Your task to perform on an android device: Go to calendar. Show me events next week Image 0: 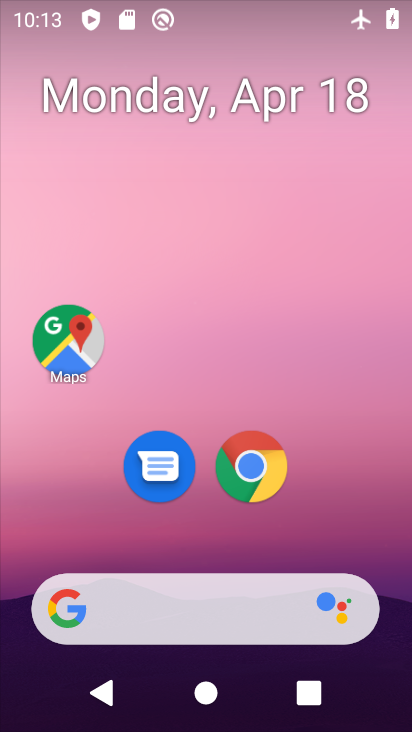
Step 0: drag from (258, 417) to (289, 157)
Your task to perform on an android device: Go to calendar. Show me events next week Image 1: 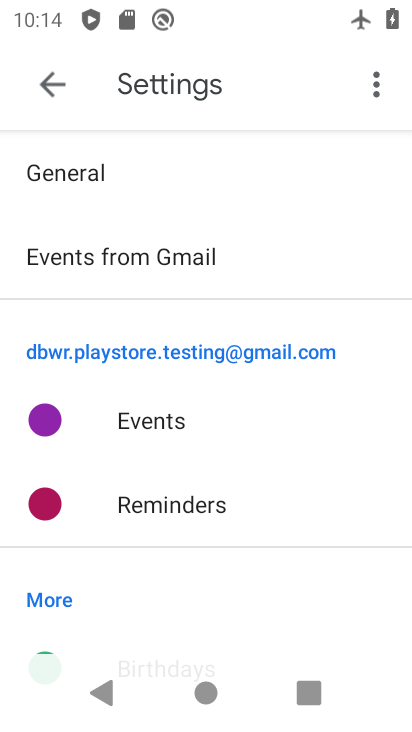
Step 1: press home button
Your task to perform on an android device: Go to calendar. Show me events next week Image 2: 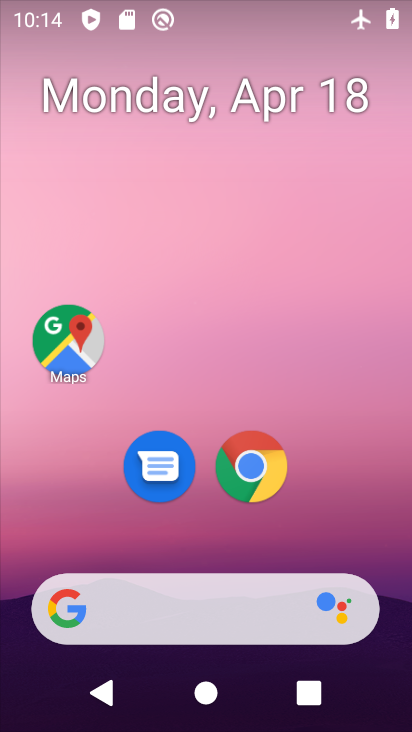
Step 2: drag from (243, 577) to (288, 247)
Your task to perform on an android device: Go to calendar. Show me events next week Image 3: 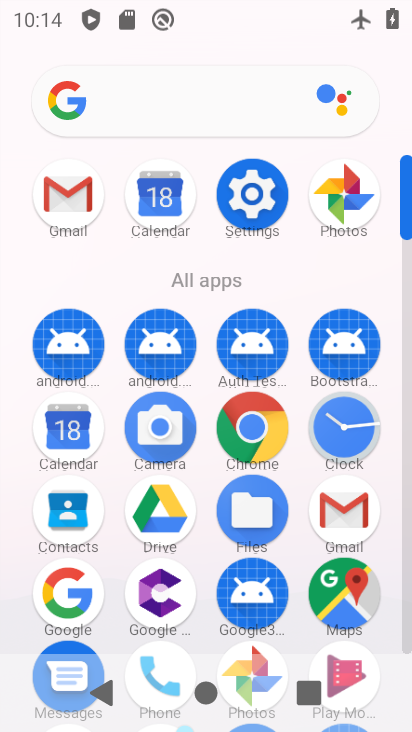
Step 3: click (70, 436)
Your task to perform on an android device: Go to calendar. Show me events next week Image 4: 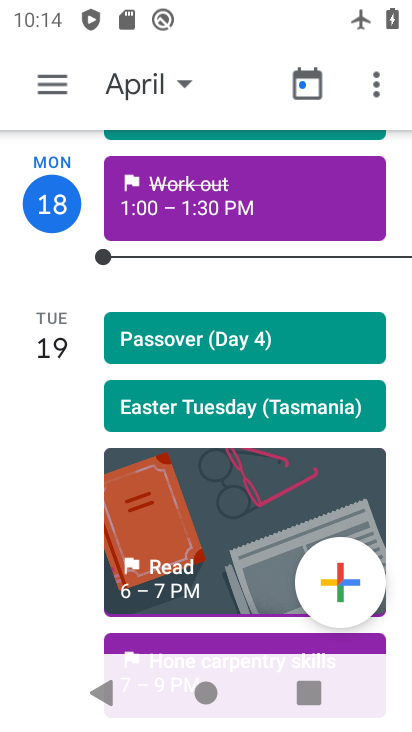
Step 4: click (176, 93)
Your task to perform on an android device: Go to calendar. Show me events next week Image 5: 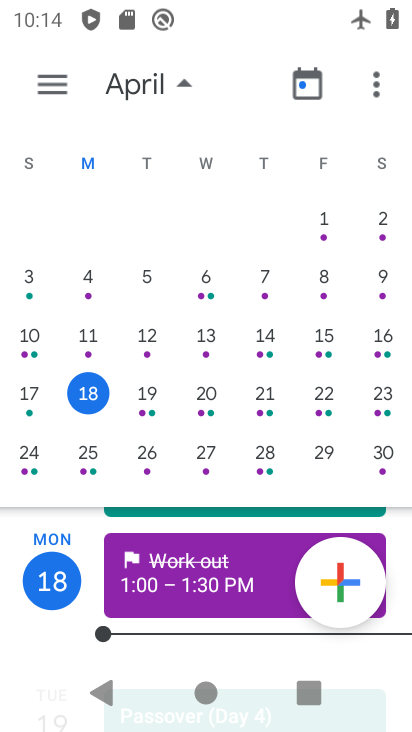
Step 5: click (26, 470)
Your task to perform on an android device: Go to calendar. Show me events next week Image 6: 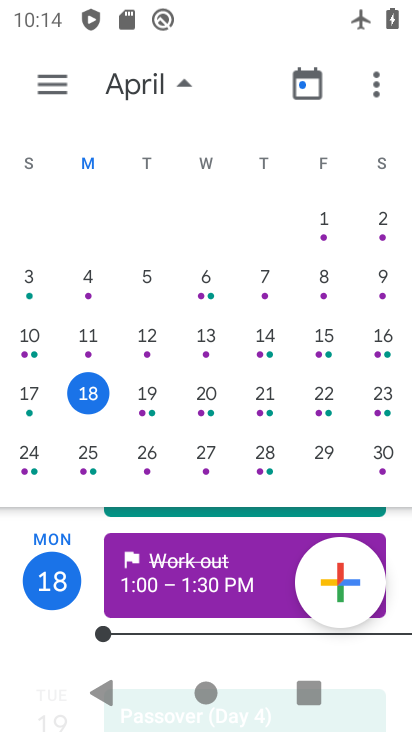
Step 6: click (33, 475)
Your task to perform on an android device: Go to calendar. Show me events next week Image 7: 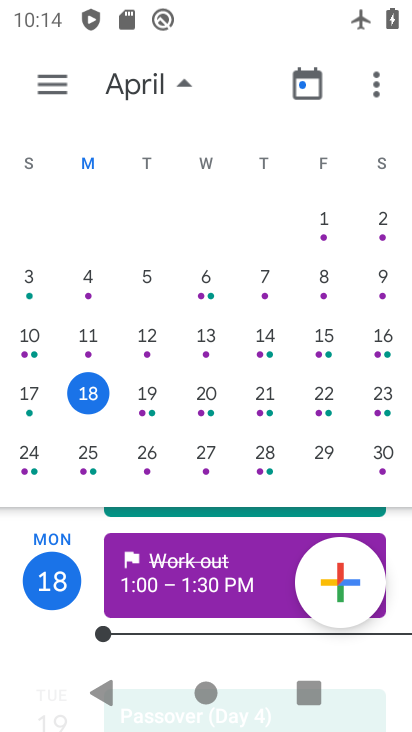
Step 7: click (42, 463)
Your task to perform on an android device: Go to calendar. Show me events next week Image 8: 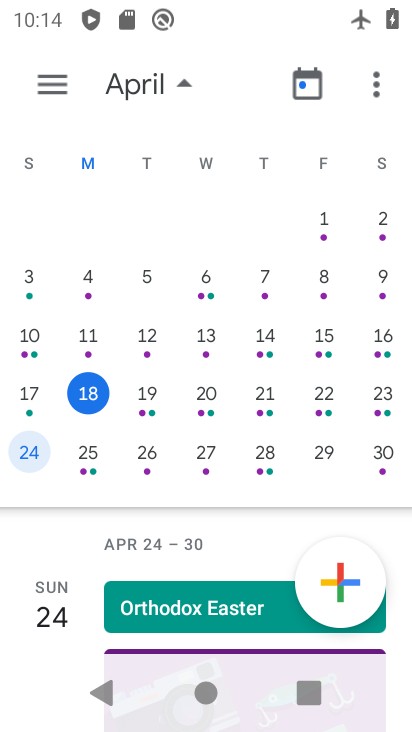
Step 8: task complete